Your task to perform on an android device: See recent photos Image 0: 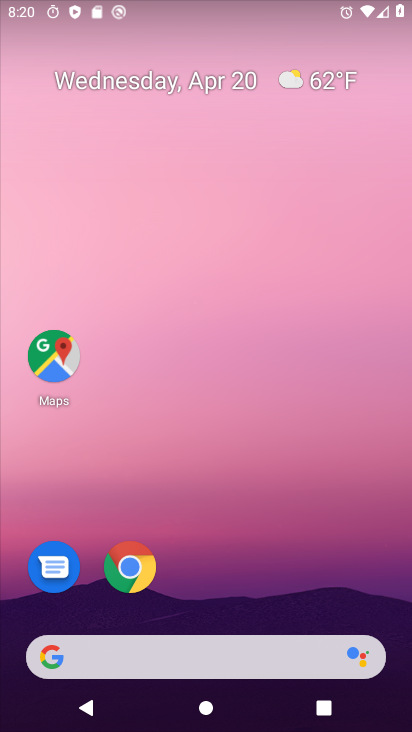
Step 0: drag from (338, 617) to (340, 11)
Your task to perform on an android device: See recent photos Image 1: 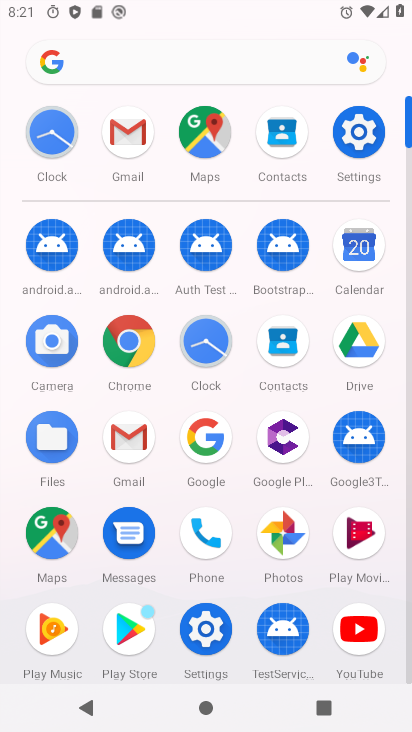
Step 1: click (275, 542)
Your task to perform on an android device: See recent photos Image 2: 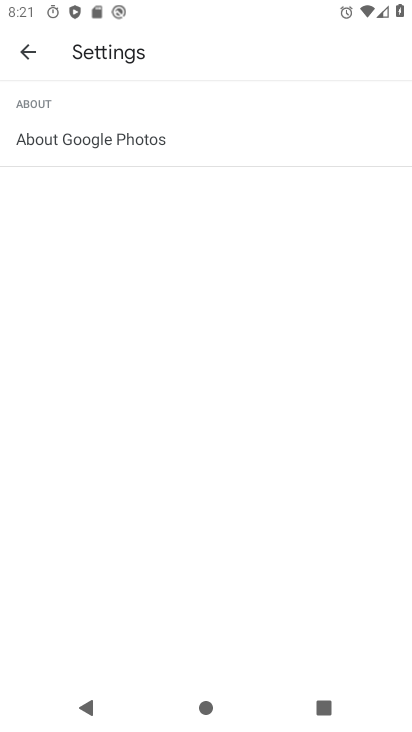
Step 2: click (29, 63)
Your task to perform on an android device: See recent photos Image 3: 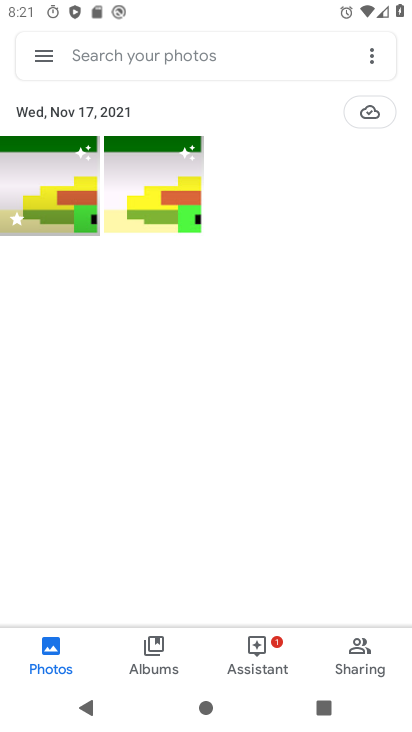
Step 3: task complete